Your task to perform on an android device: change timer sound Image 0: 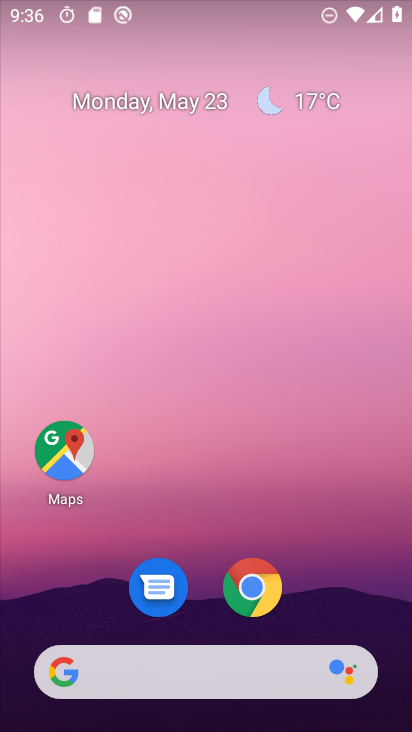
Step 0: drag from (193, 560) to (276, 3)
Your task to perform on an android device: change timer sound Image 1: 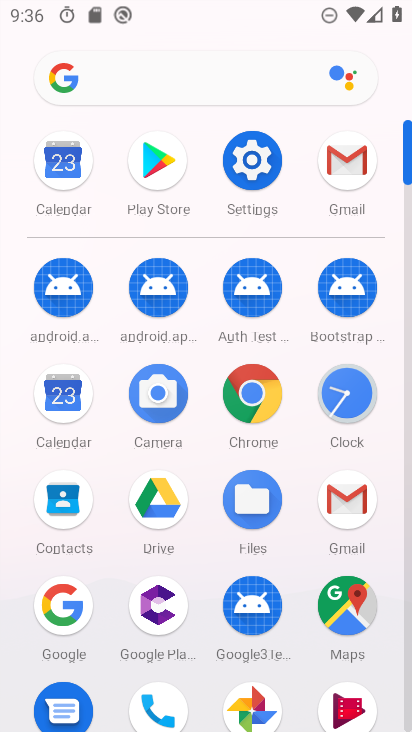
Step 1: click (336, 384)
Your task to perform on an android device: change timer sound Image 2: 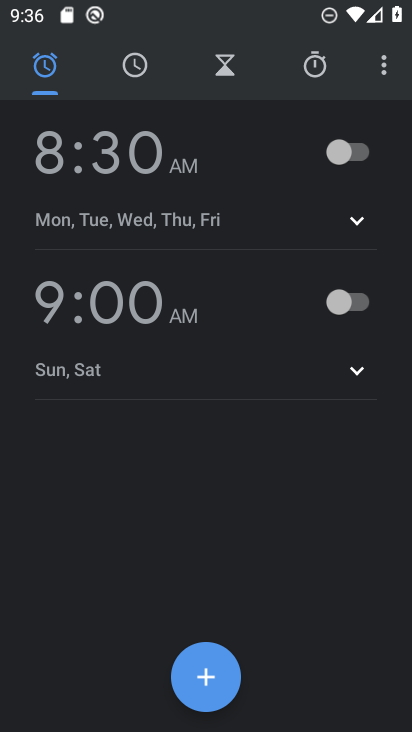
Step 2: click (382, 63)
Your task to perform on an android device: change timer sound Image 3: 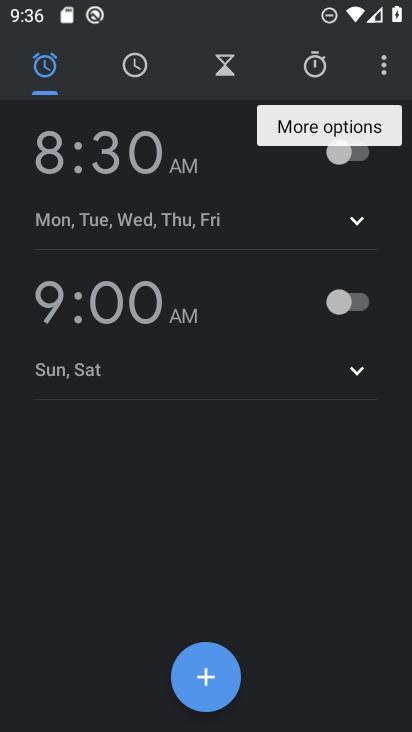
Step 3: click (382, 63)
Your task to perform on an android device: change timer sound Image 4: 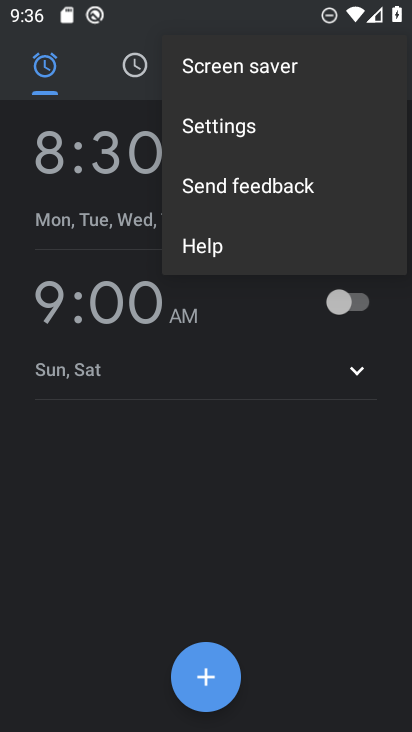
Step 4: click (209, 126)
Your task to perform on an android device: change timer sound Image 5: 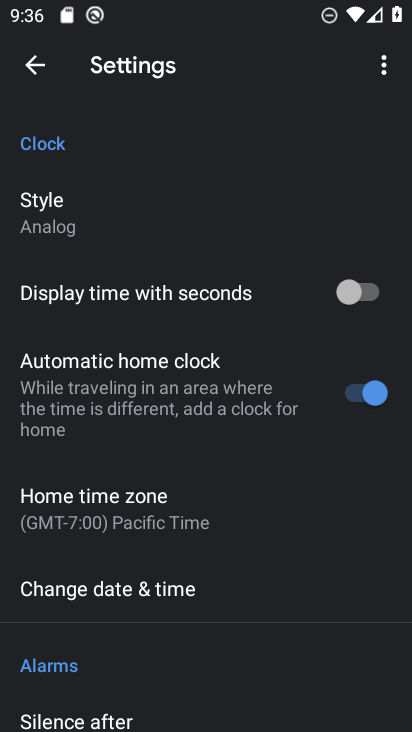
Step 5: drag from (146, 662) to (202, 247)
Your task to perform on an android device: change timer sound Image 6: 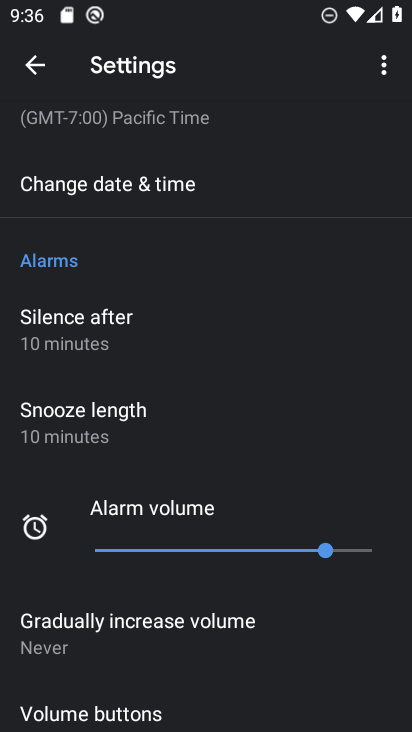
Step 6: drag from (145, 622) to (220, 274)
Your task to perform on an android device: change timer sound Image 7: 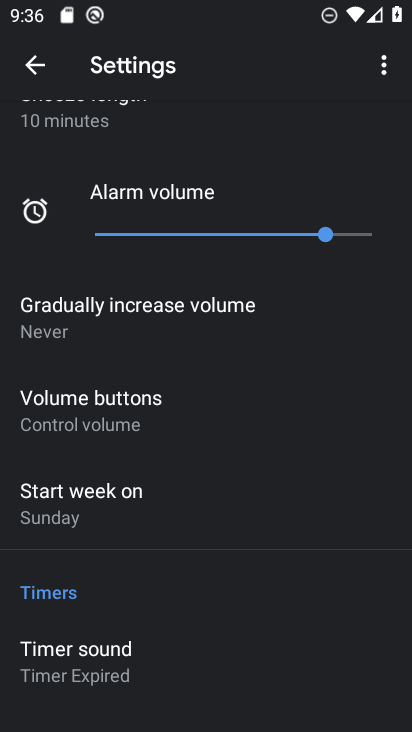
Step 7: click (99, 677)
Your task to perform on an android device: change timer sound Image 8: 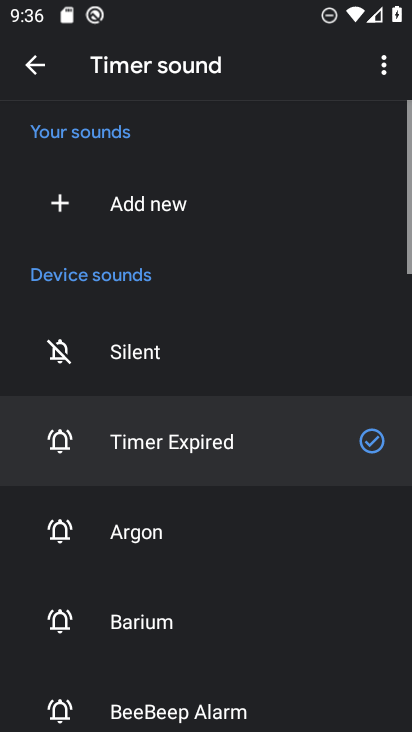
Step 8: click (136, 543)
Your task to perform on an android device: change timer sound Image 9: 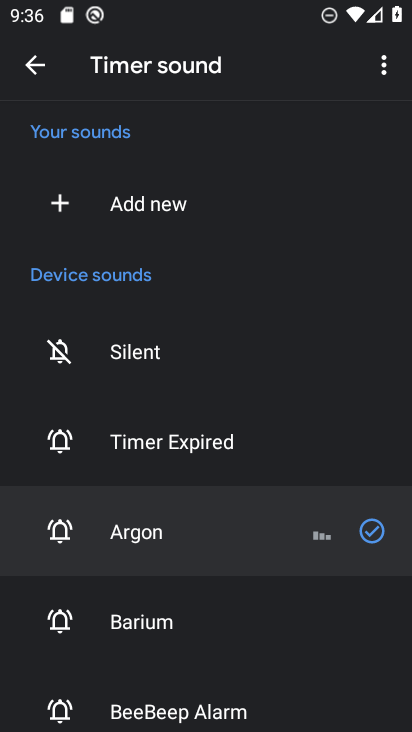
Step 9: task complete